Your task to perform on an android device: Open calendar and show me the second week of next month Image 0: 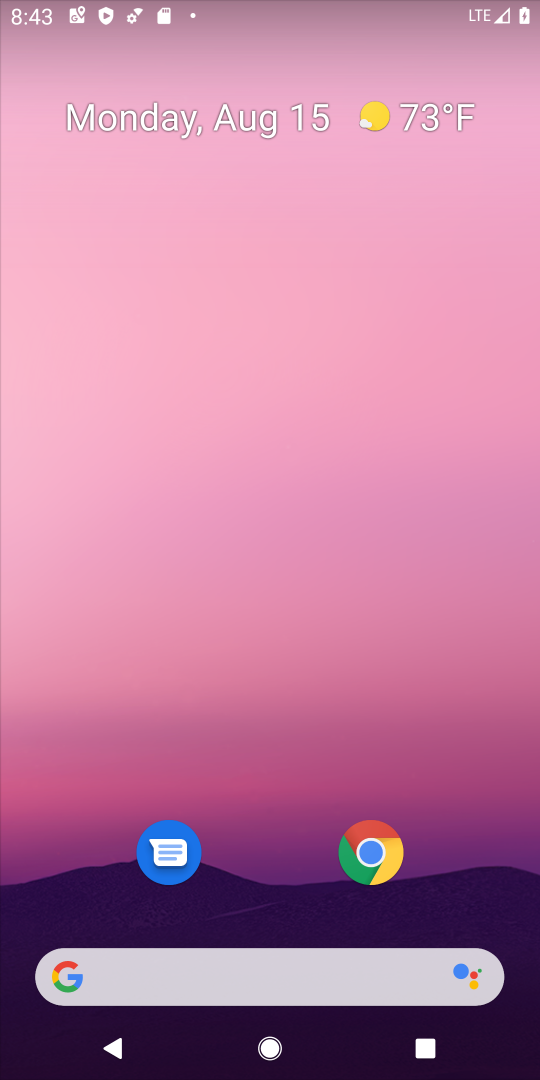
Step 0: drag from (229, 975) to (128, 103)
Your task to perform on an android device: Open calendar and show me the second week of next month Image 1: 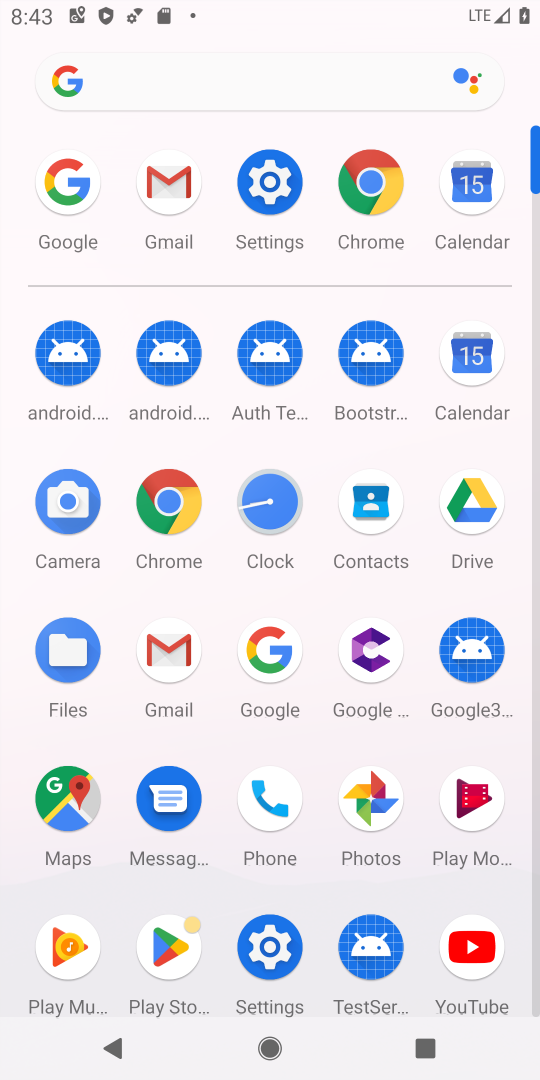
Step 1: click (468, 188)
Your task to perform on an android device: Open calendar and show me the second week of next month Image 2: 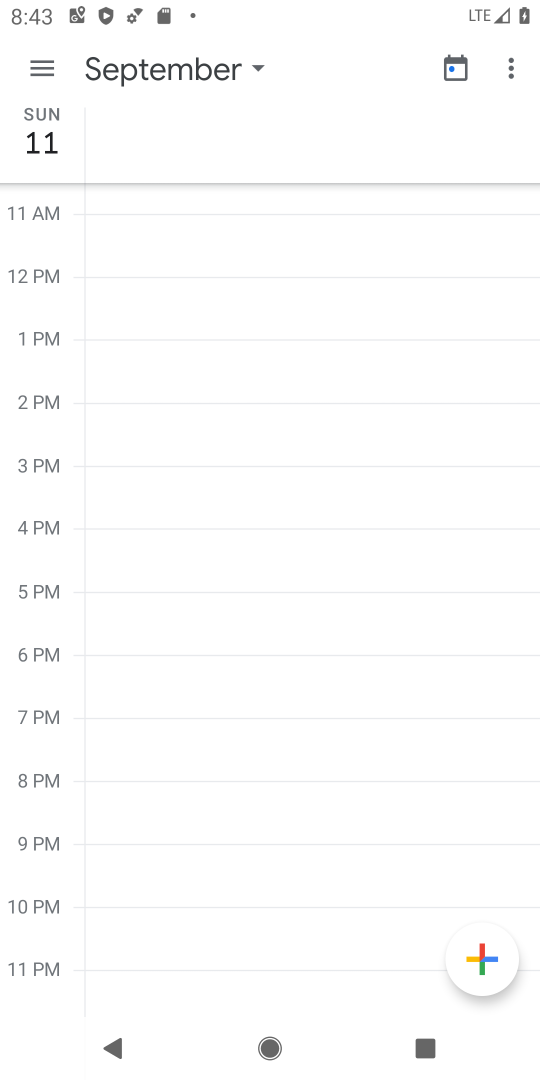
Step 2: click (459, 64)
Your task to perform on an android device: Open calendar and show me the second week of next month Image 3: 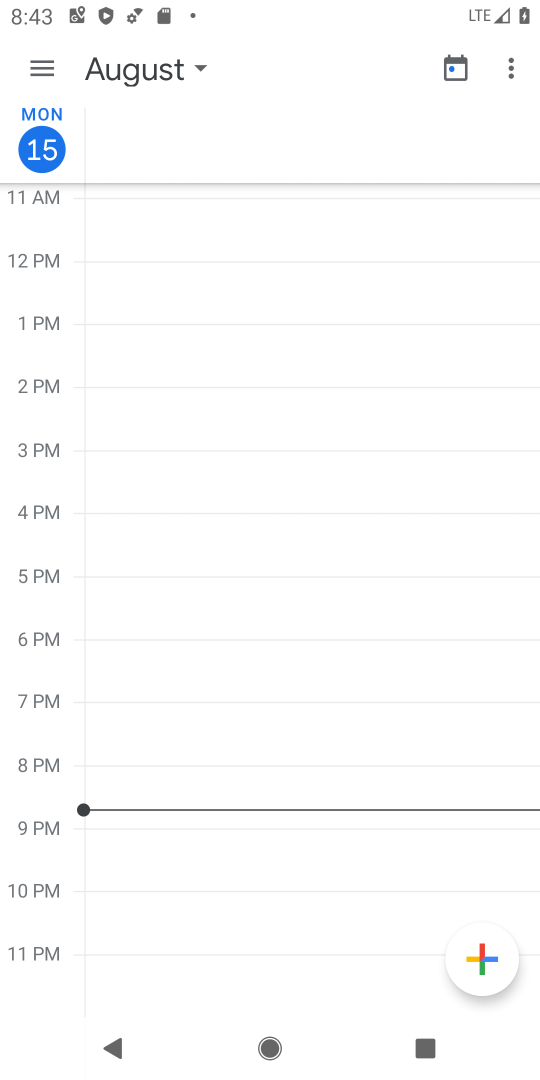
Step 3: click (203, 67)
Your task to perform on an android device: Open calendar and show me the second week of next month Image 4: 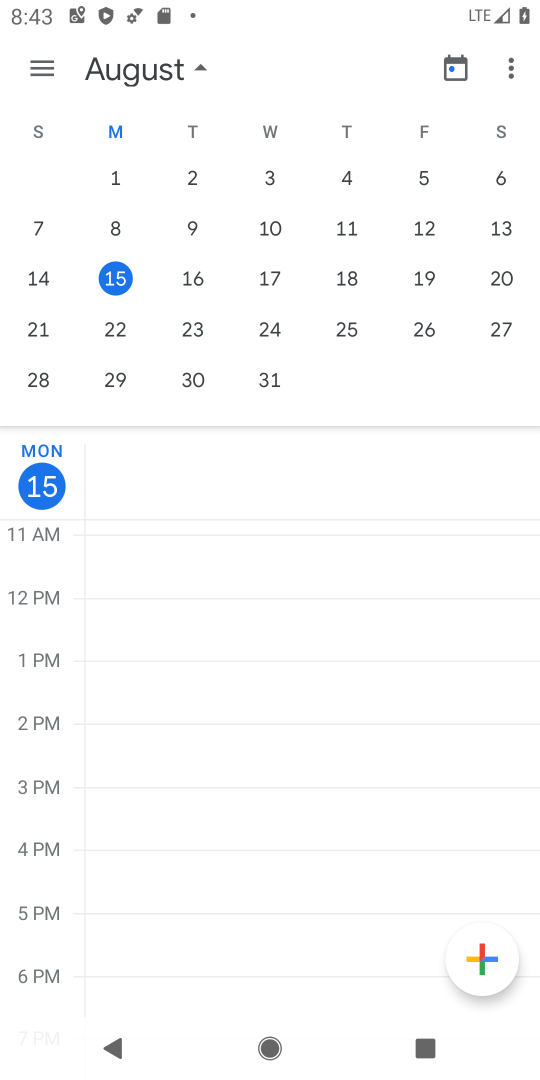
Step 4: drag from (478, 306) to (9, 299)
Your task to perform on an android device: Open calendar and show me the second week of next month Image 5: 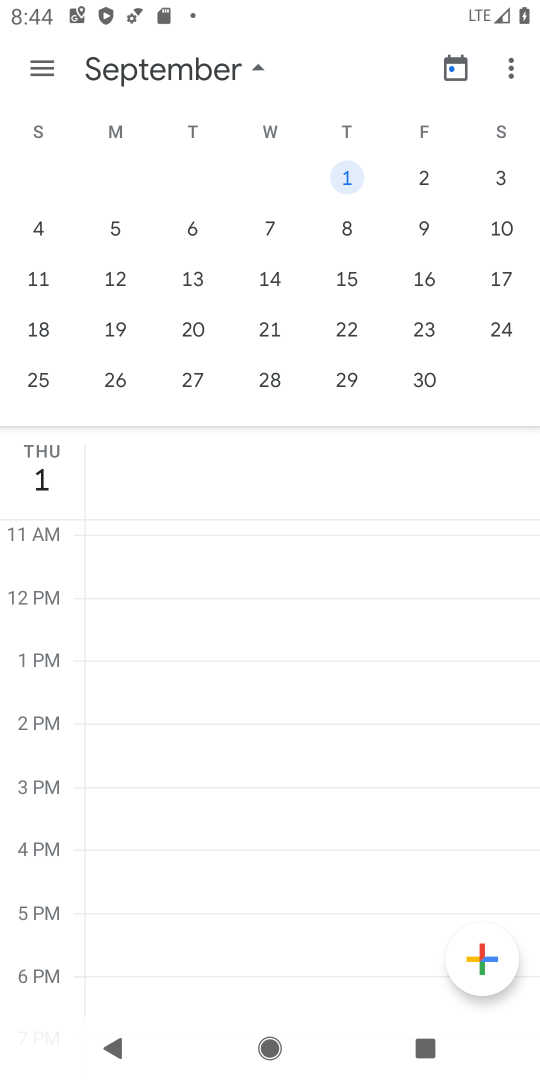
Step 5: click (115, 275)
Your task to perform on an android device: Open calendar and show me the second week of next month Image 6: 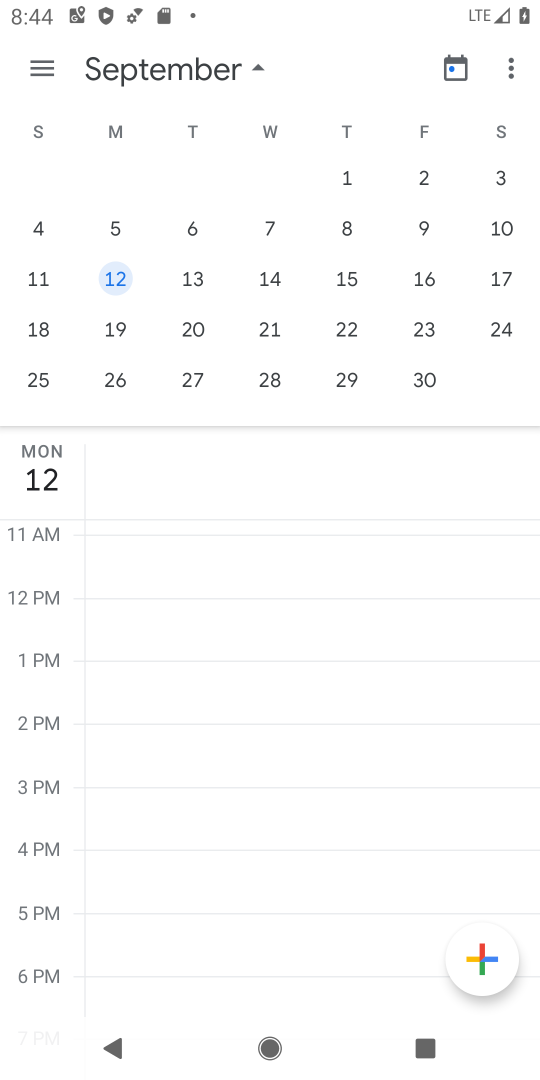
Step 6: click (32, 73)
Your task to perform on an android device: Open calendar and show me the second week of next month Image 7: 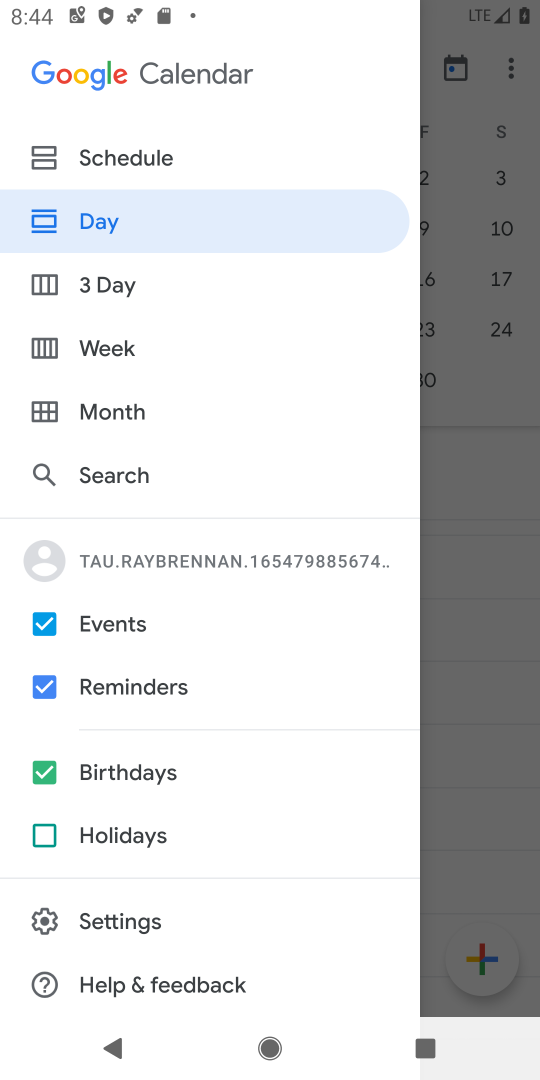
Step 7: click (128, 349)
Your task to perform on an android device: Open calendar and show me the second week of next month Image 8: 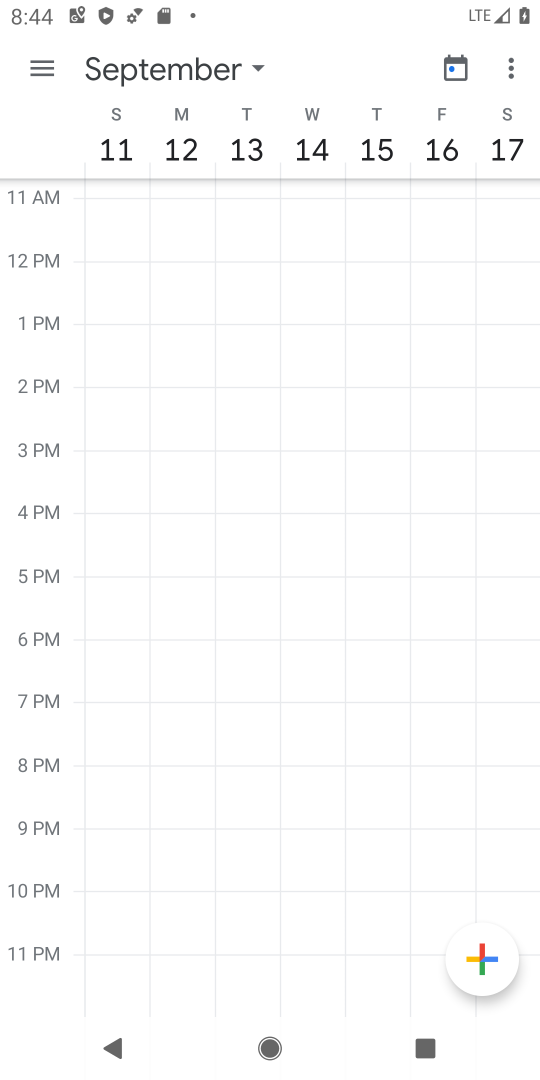
Step 8: task complete